Your task to perform on an android device: turn notification dots on Image 0: 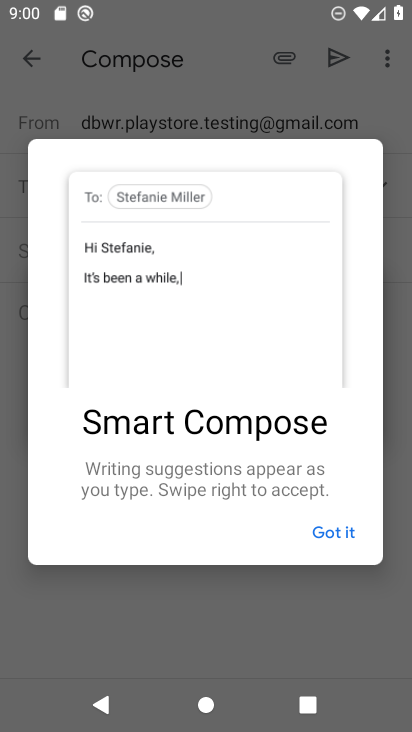
Step 0: press home button
Your task to perform on an android device: turn notification dots on Image 1: 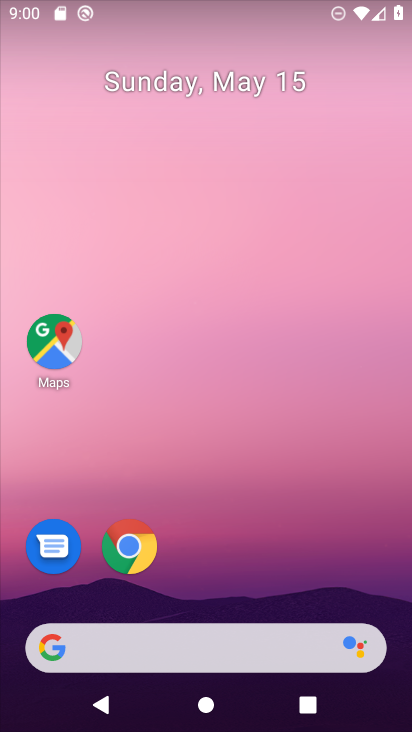
Step 1: drag from (232, 559) to (230, 51)
Your task to perform on an android device: turn notification dots on Image 2: 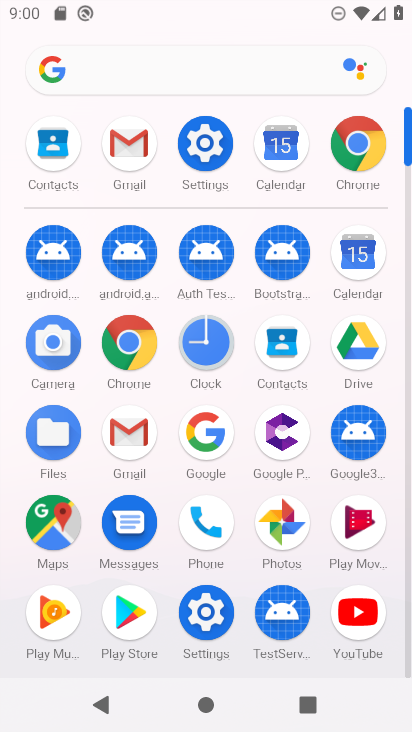
Step 2: click (200, 129)
Your task to perform on an android device: turn notification dots on Image 3: 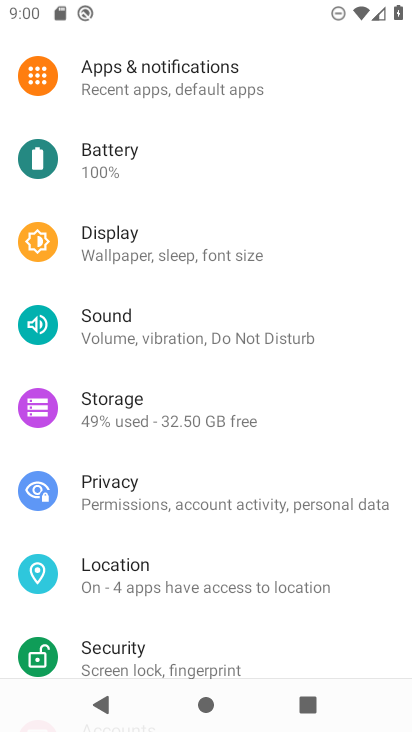
Step 3: click (212, 77)
Your task to perform on an android device: turn notification dots on Image 4: 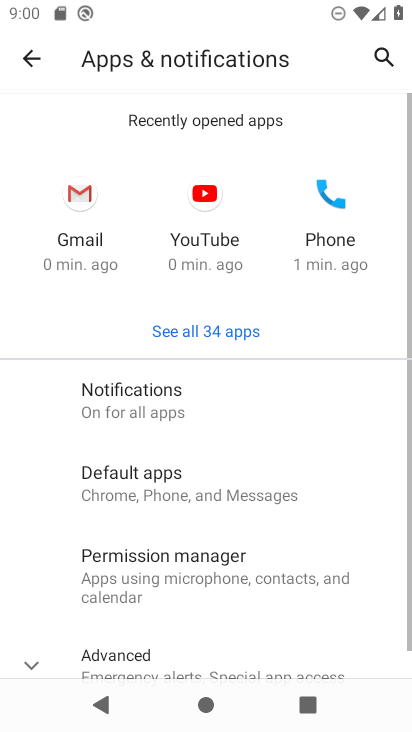
Step 4: drag from (194, 509) to (230, 300)
Your task to perform on an android device: turn notification dots on Image 5: 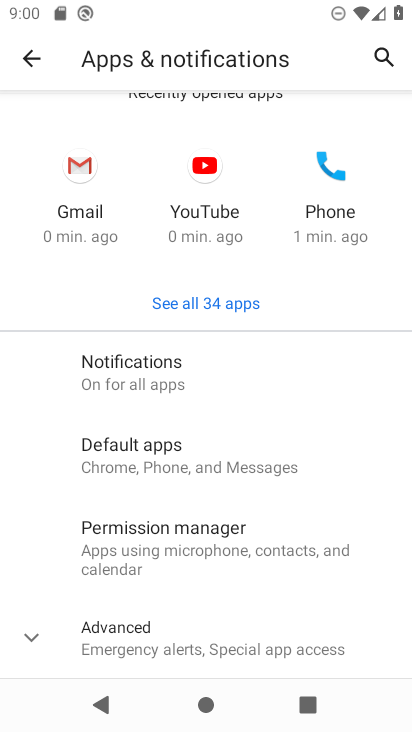
Step 5: click (24, 636)
Your task to perform on an android device: turn notification dots on Image 6: 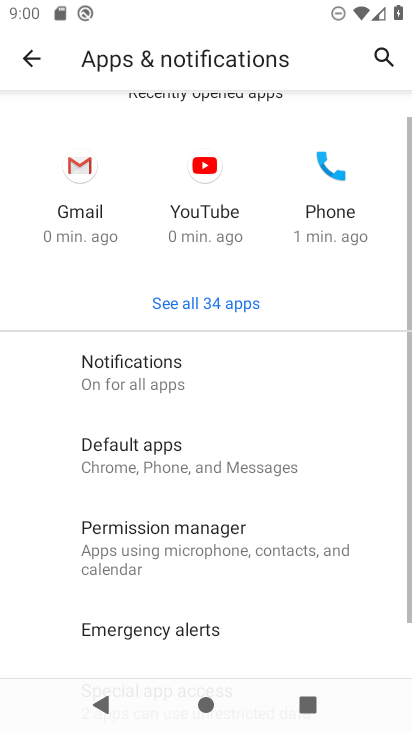
Step 6: drag from (170, 579) to (202, 271)
Your task to perform on an android device: turn notification dots on Image 7: 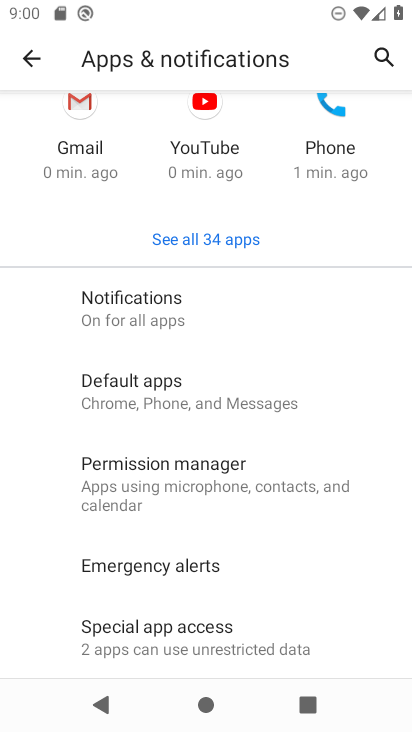
Step 7: click (181, 313)
Your task to perform on an android device: turn notification dots on Image 8: 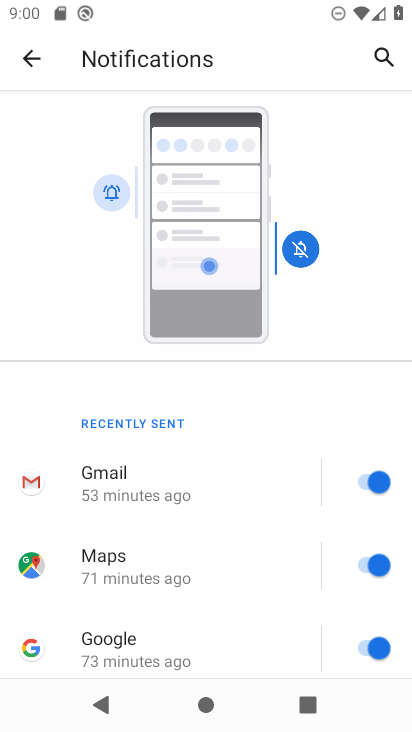
Step 8: drag from (180, 593) to (239, 300)
Your task to perform on an android device: turn notification dots on Image 9: 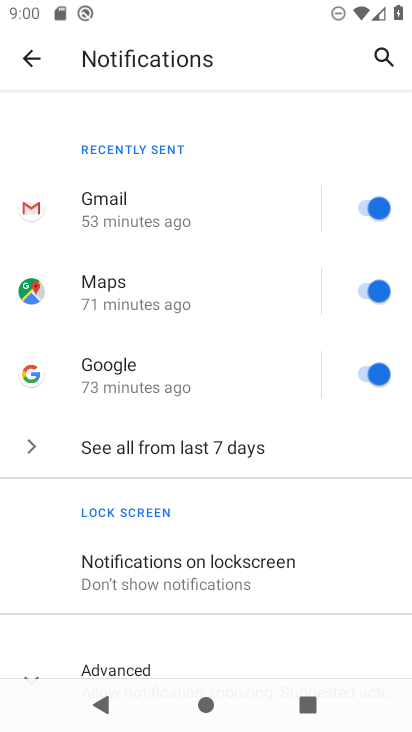
Step 9: drag from (113, 575) to (153, 380)
Your task to perform on an android device: turn notification dots on Image 10: 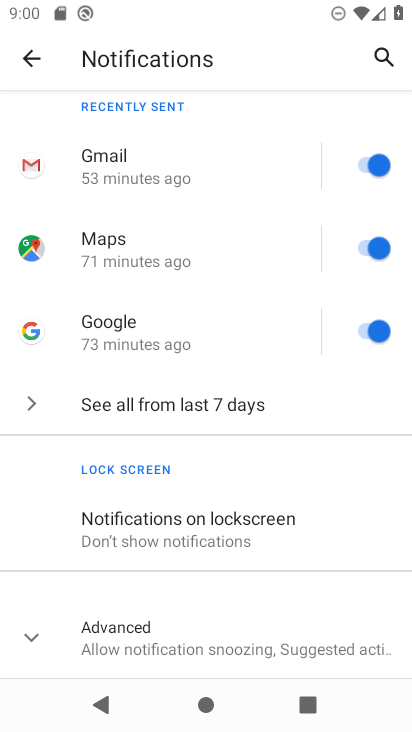
Step 10: click (33, 634)
Your task to perform on an android device: turn notification dots on Image 11: 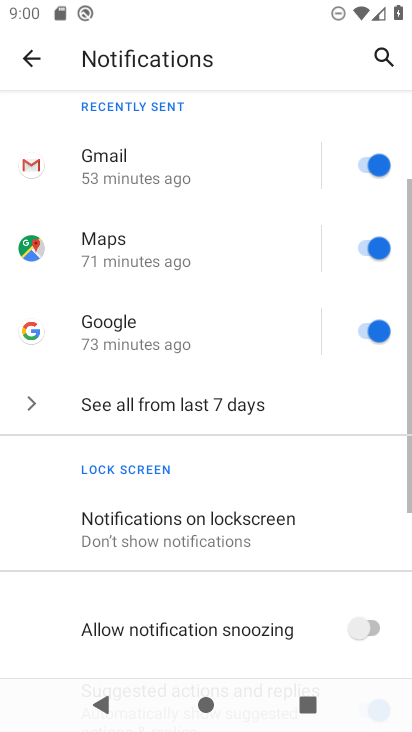
Step 11: task complete